Your task to perform on an android device: Is it going to rain today? Image 0: 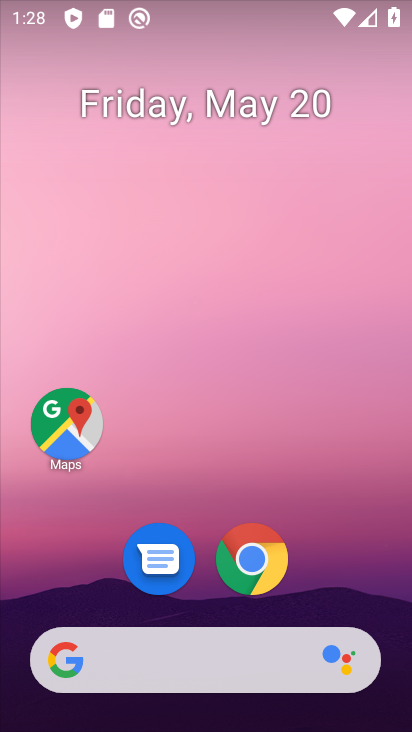
Step 0: click (184, 639)
Your task to perform on an android device: Is it going to rain today? Image 1: 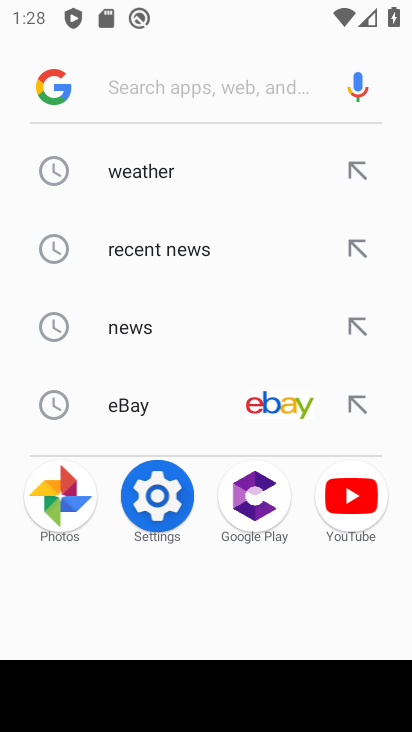
Step 1: type "is it going to rain today"
Your task to perform on an android device: Is it going to rain today? Image 2: 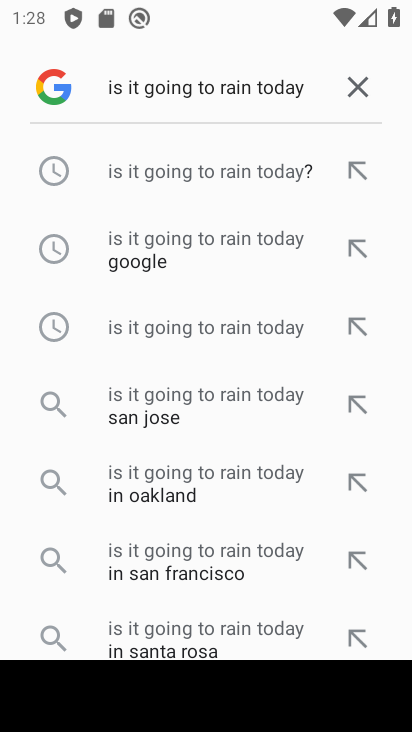
Step 2: click (207, 175)
Your task to perform on an android device: Is it going to rain today? Image 3: 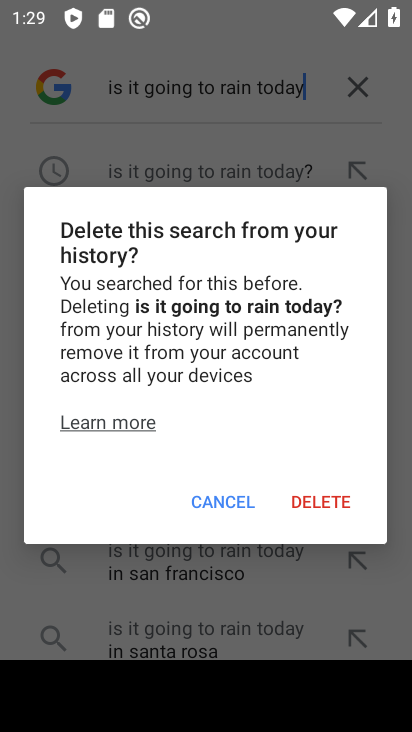
Step 3: click (225, 501)
Your task to perform on an android device: Is it going to rain today? Image 4: 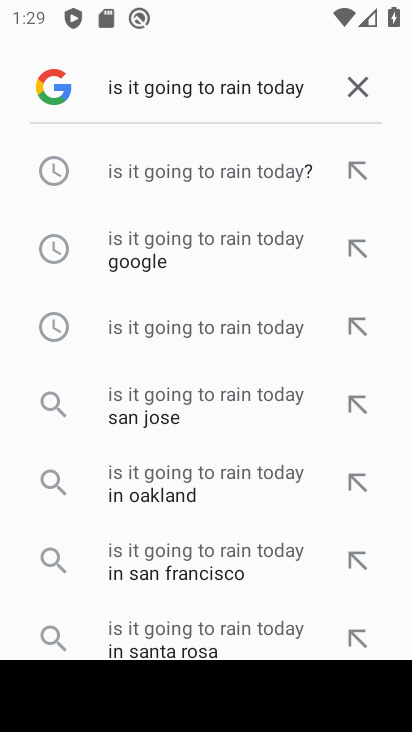
Step 4: click (205, 197)
Your task to perform on an android device: Is it going to rain today? Image 5: 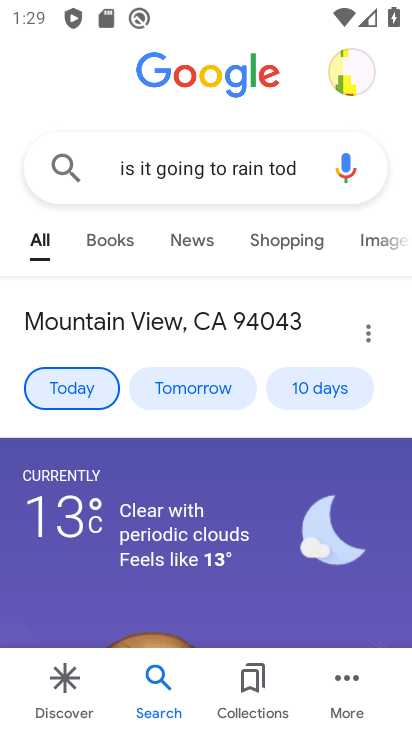
Step 5: task complete